Your task to perform on an android device: turn on bluetooth scan Image 0: 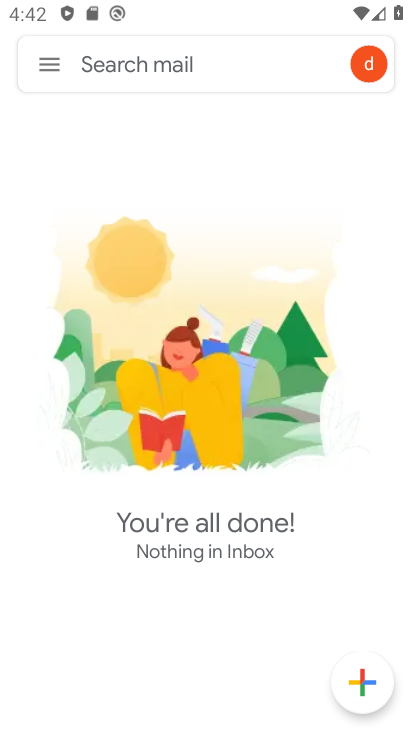
Step 0: press home button
Your task to perform on an android device: turn on bluetooth scan Image 1: 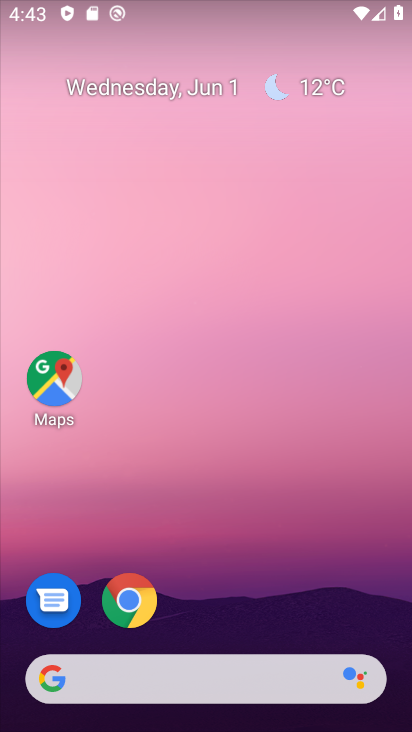
Step 1: drag from (263, 599) to (174, 95)
Your task to perform on an android device: turn on bluetooth scan Image 2: 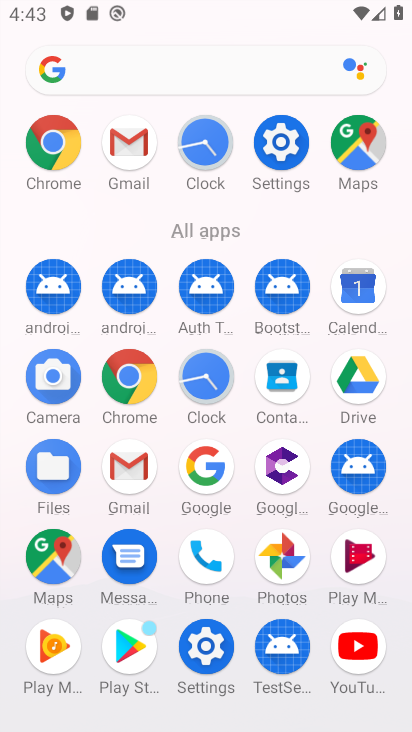
Step 2: click (280, 138)
Your task to perform on an android device: turn on bluetooth scan Image 3: 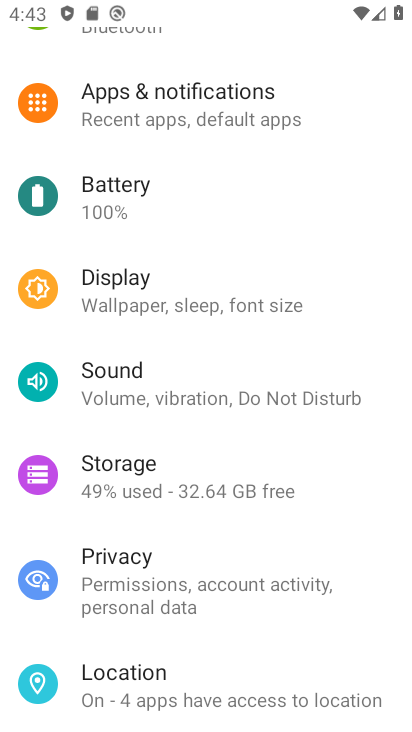
Step 3: drag from (198, 637) to (216, 511)
Your task to perform on an android device: turn on bluetooth scan Image 4: 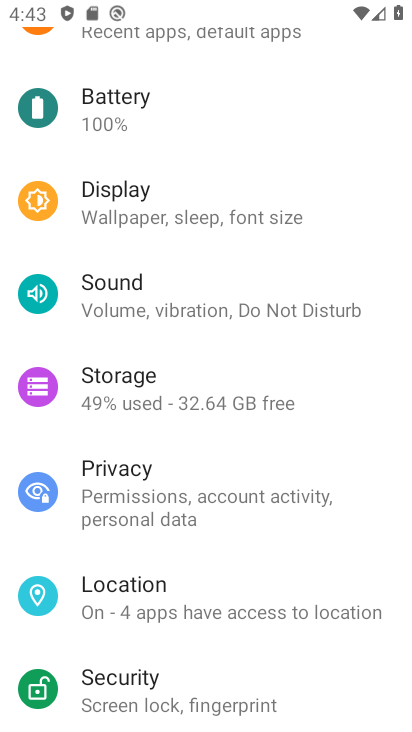
Step 4: click (245, 601)
Your task to perform on an android device: turn on bluetooth scan Image 5: 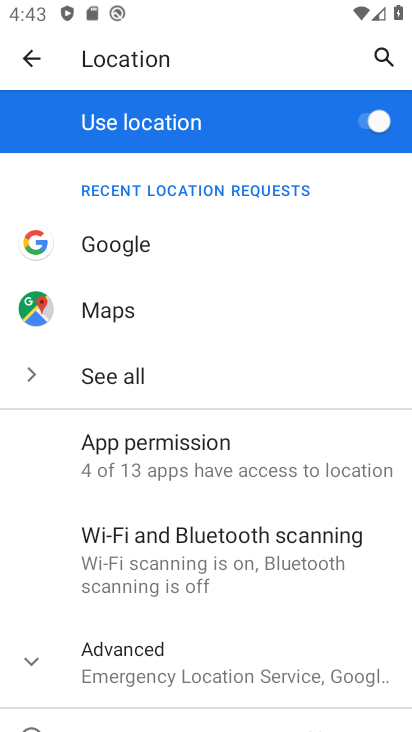
Step 5: click (233, 539)
Your task to perform on an android device: turn on bluetooth scan Image 6: 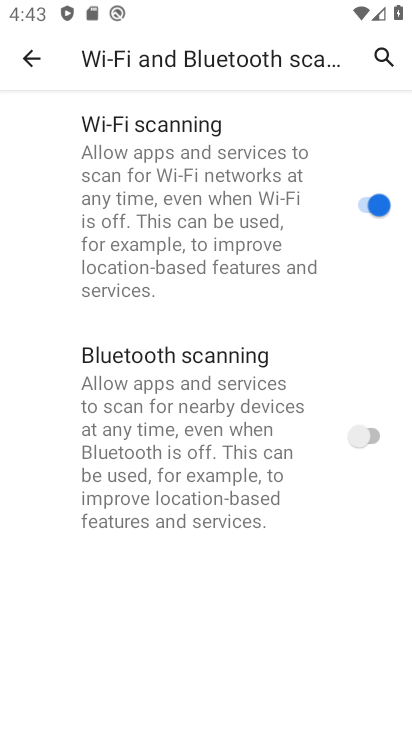
Step 6: click (360, 437)
Your task to perform on an android device: turn on bluetooth scan Image 7: 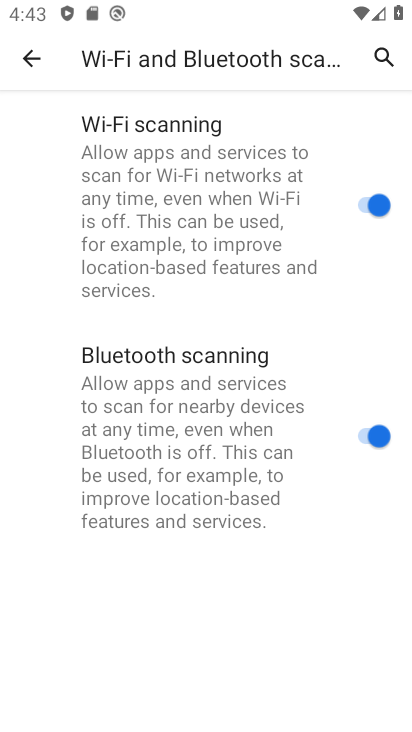
Step 7: task complete